Your task to perform on an android device: turn pop-ups on in chrome Image 0: 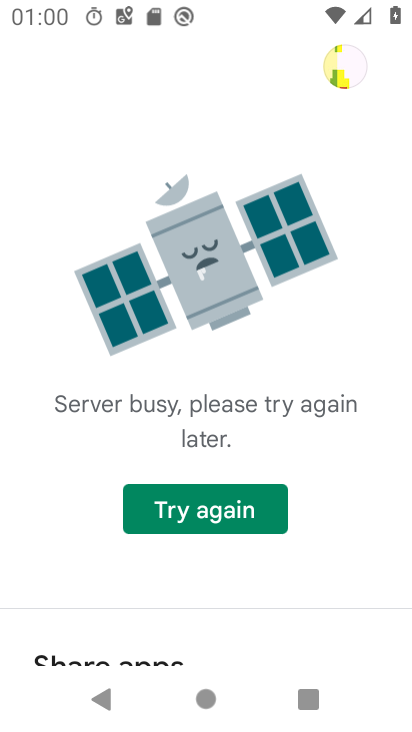
Step 0: press back button
Your task to perform on an android device: turn pop-ups on in chrome Image 1: 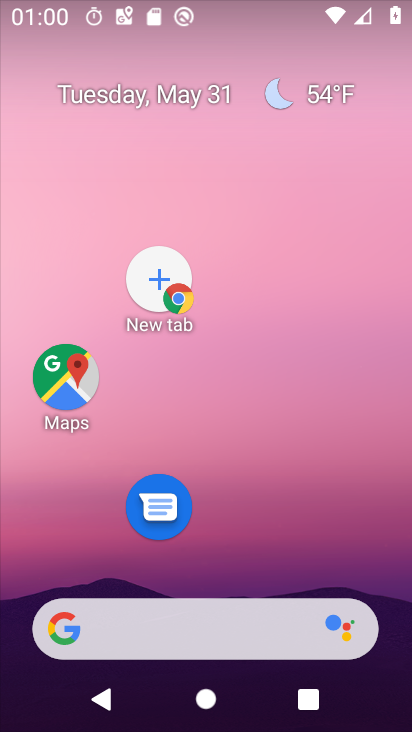
Step 1: drag from (243, 659) to (234, 86)
Your task to perform on an android device: turn pop-ups on in chrome Image 2: 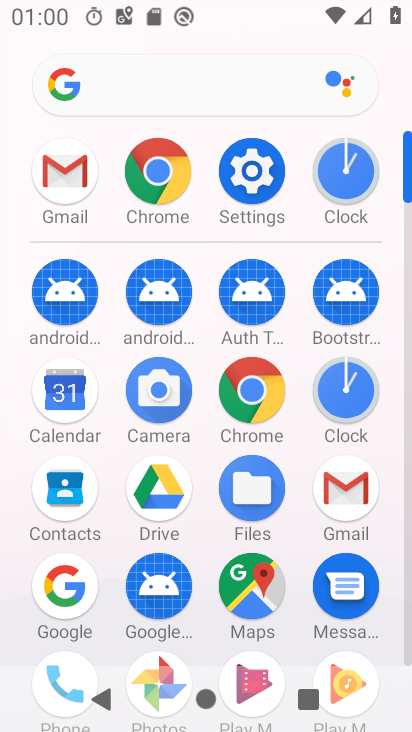
Step 2: click (150, 180)
Your task to perform on an android device: turn pop-ups on in chrome Image 3: 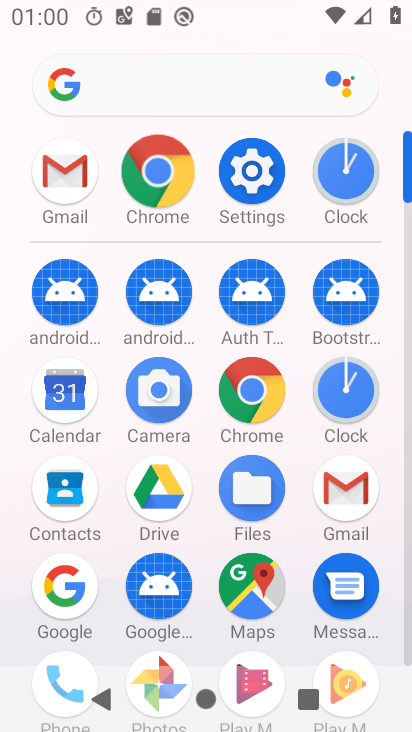
Step 3: click (136, 163)
Your task to perform on an android device: turn pop-ups on in chrome Image 4: 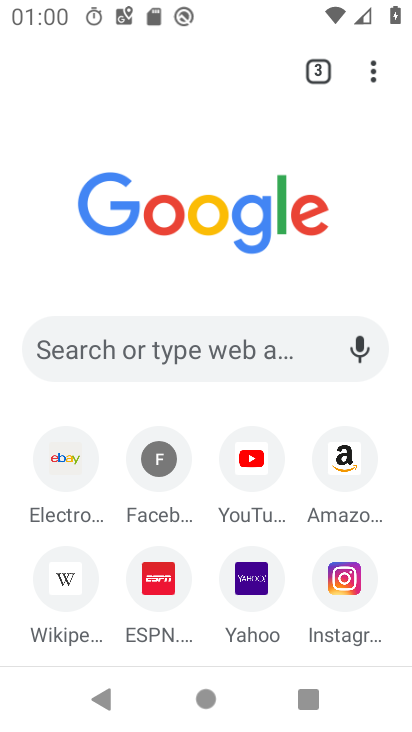
Step 4: drag from (371, 77) to (121, 501)
Your task to perform on an android device: turn pop-ups on in chrome Image 5: 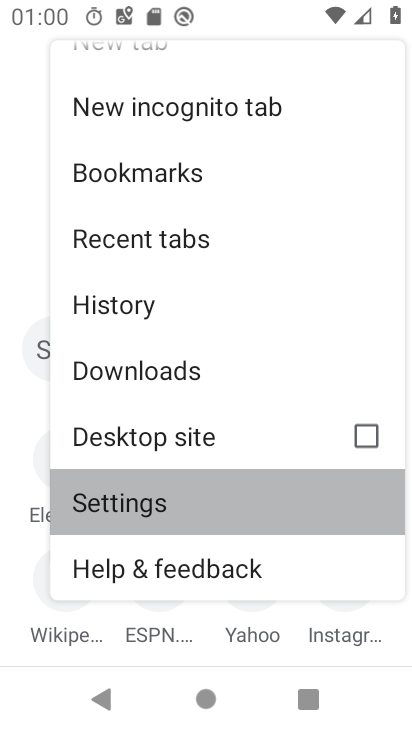
Step 5: click (121, 501)
Your task to perform on an android device: turn pop-ups on in chrome Image 6: 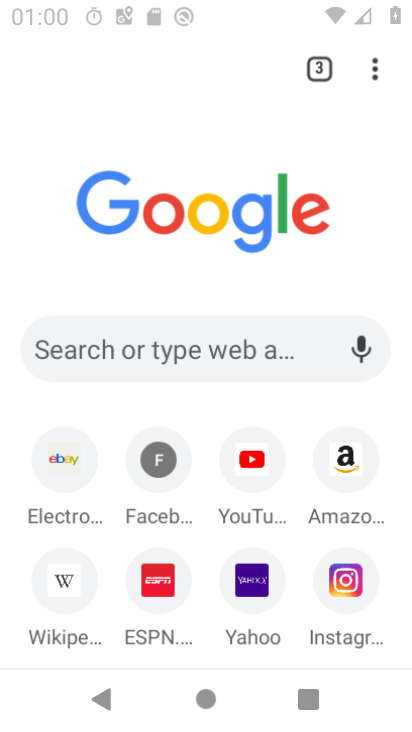
Step 6: click (129, 499)
Your task to perform on an android device: turn pop-ups on in chrome Image 7: 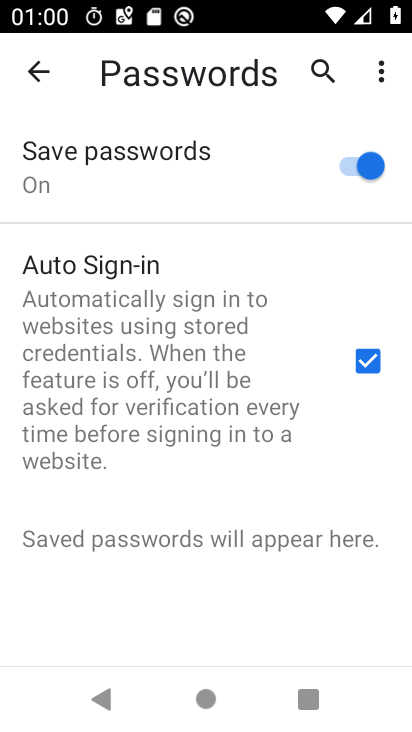
Step 7: click (24, 64)
Your task to perform on an android device: turn pop-ups on in chrome Image 8: 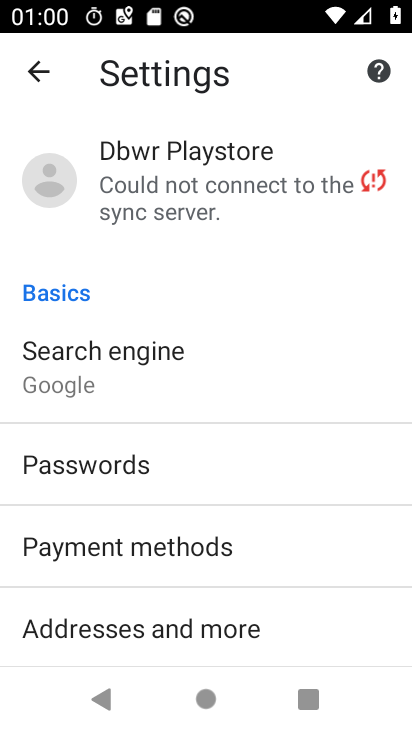
Step 8: drag from (183, 521) to (157, 206)
Your task to perform on an android device: turn pop-ups on in chrome Image 9: 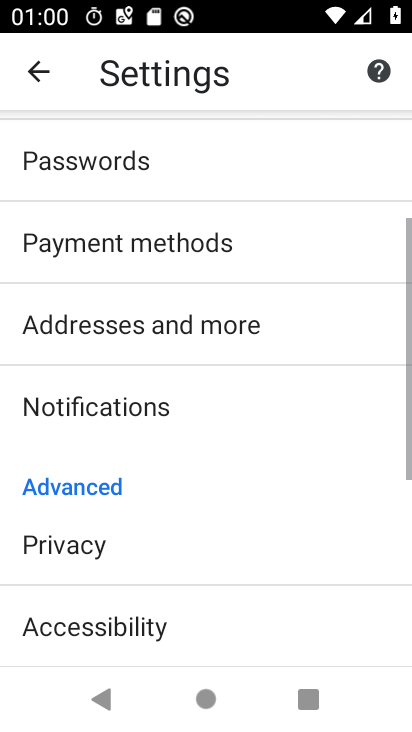
Step 9: drag from (184, 439) to (168, 169)
Your task to perform on an android device: turn pop-ups on in chrome Image 10: 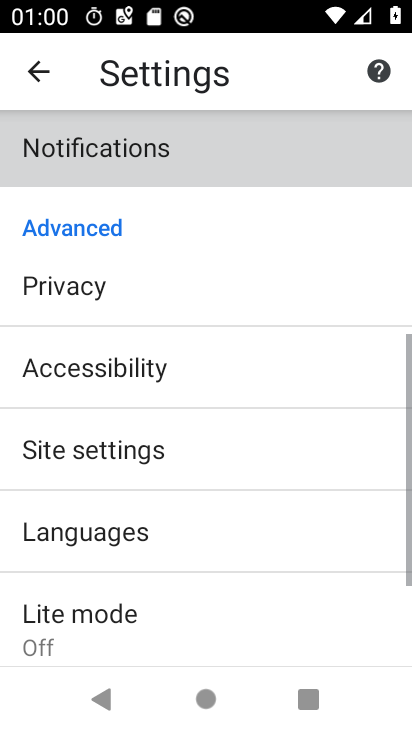
Step 10: drag from (166, 387) to (151, 163)
Your task to perform on an android device: turn pop-ups on in chrome Image 11: 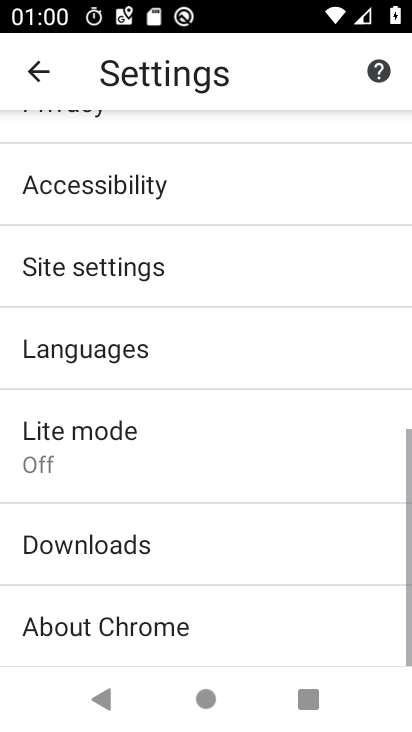
Step 11: drag from (184, 442) to (141, 147)
Your task to perform on an android device: turn pop-ups on in chrome Image 12: 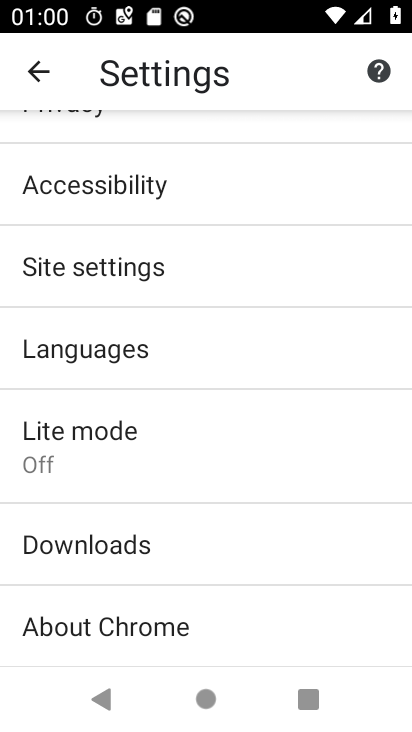
Step 12: click (83, 271)
Your task to perform on an android device: turn pop-ups on in chrome Image 13: 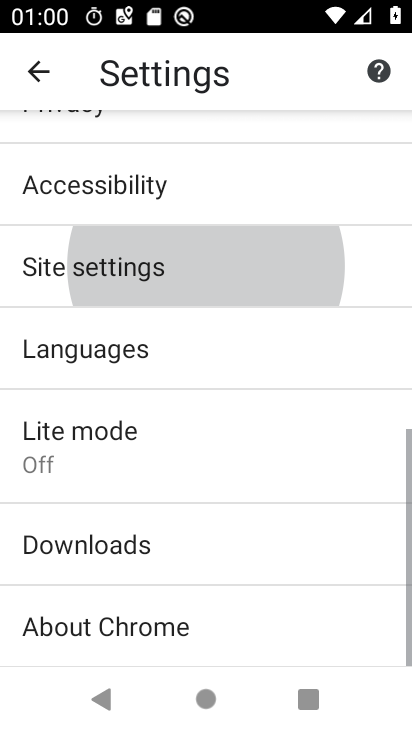
Step 13: click (83, 271)
Your task to perform on an android device: turn pop-ups on in chrome Image 14: 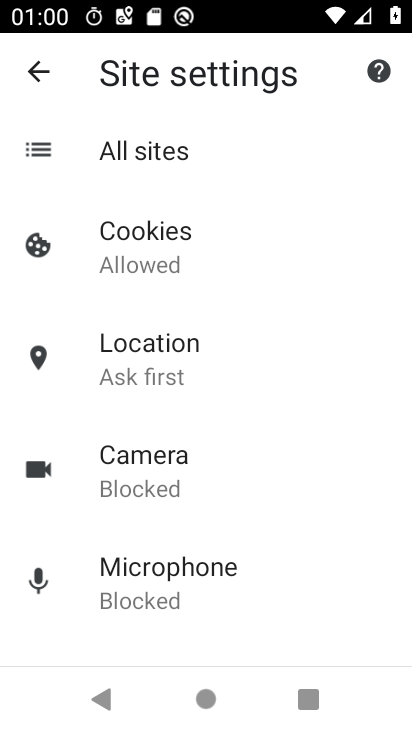
Step 14: drag from (169, 481) to (135, 259)
Your task to perform on an android device: turn pop-ups on in chrome Image 15: 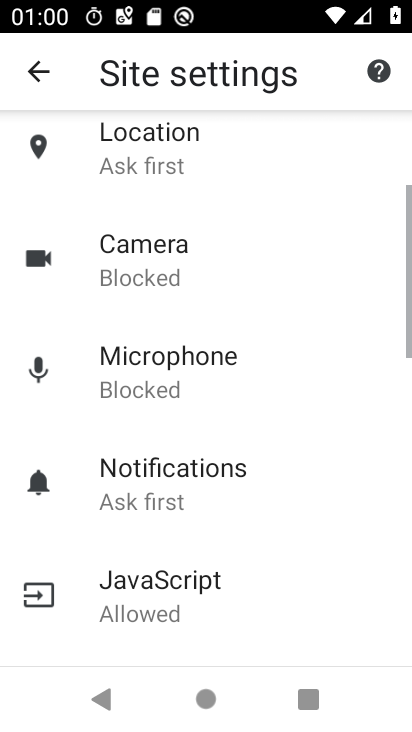
Step 15: drag from (183, 487) to (159, 174)
Your task to perform on an android device: turn pop-ups on in chrome Image 16: 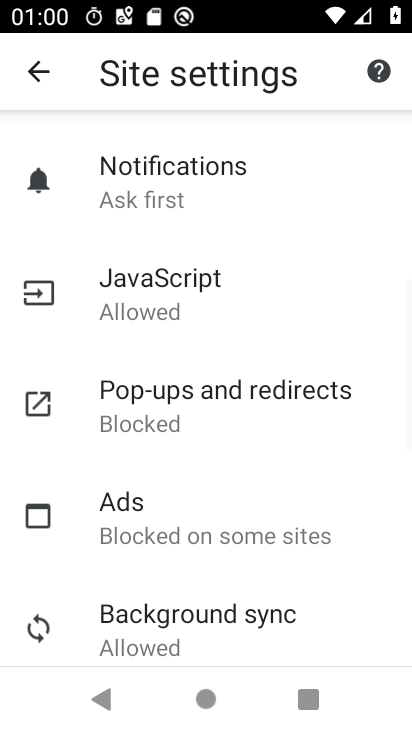
Step 16: click (181, 398)
Your task to perform on an android device: turn pop-ups on in chrome Image 17: 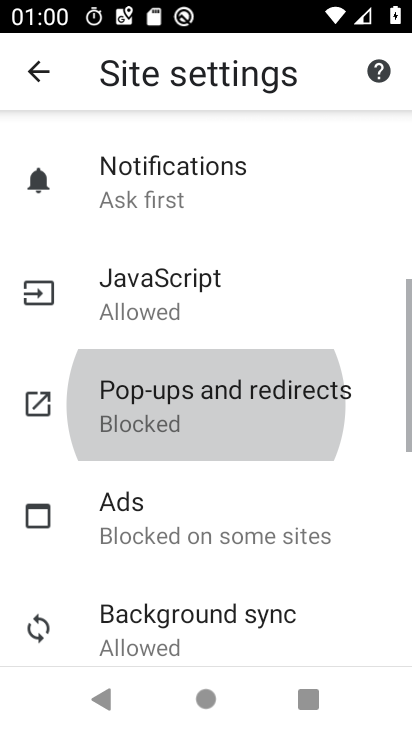
Step 17: click (181, 398)
Your task to perform on an android device: turn pop-ups on in chrome Image 18: 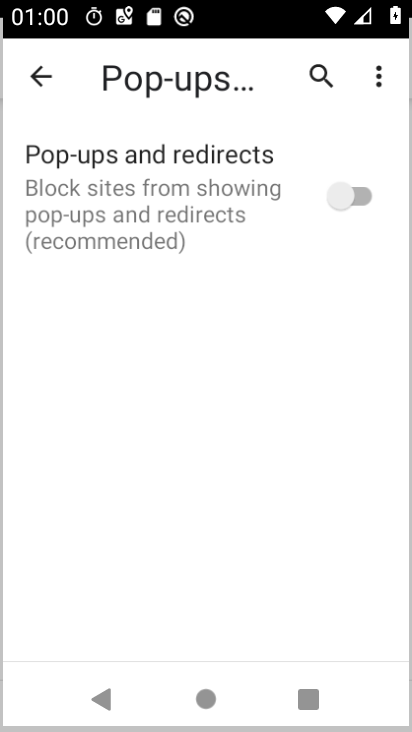
Step 18: click (179, 397)
Your task to perform on an android device: turn pop-ups on in chrome Image 19: 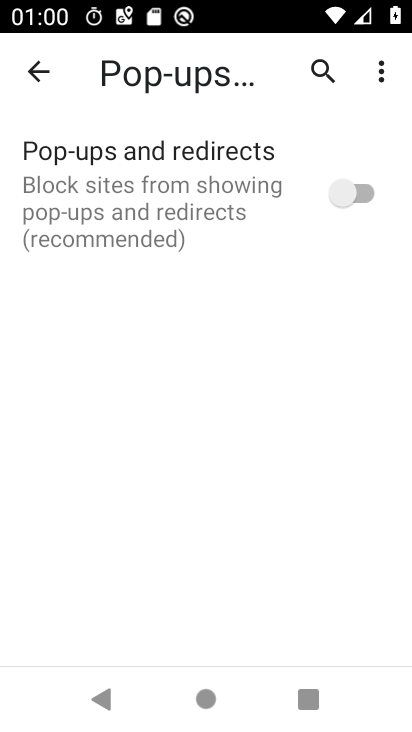
Step 19: click (179, 397)
Your task to perform on an android device: turn pop-ups on in chrome Image 20: 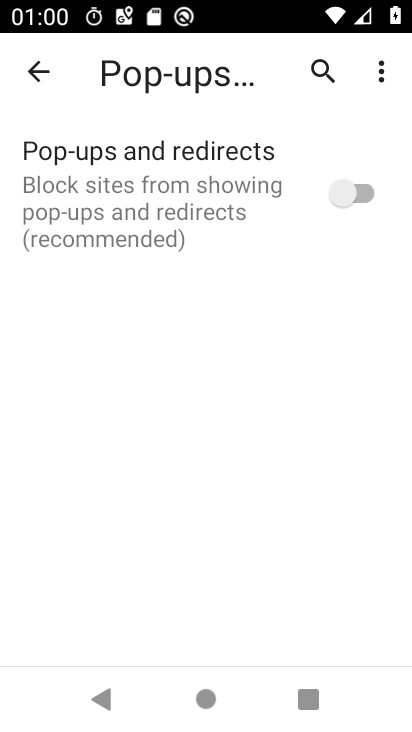
Step 20: click (343, 193)
Your task to perform on an android device: turn pop-ups on in chrome Image 21: 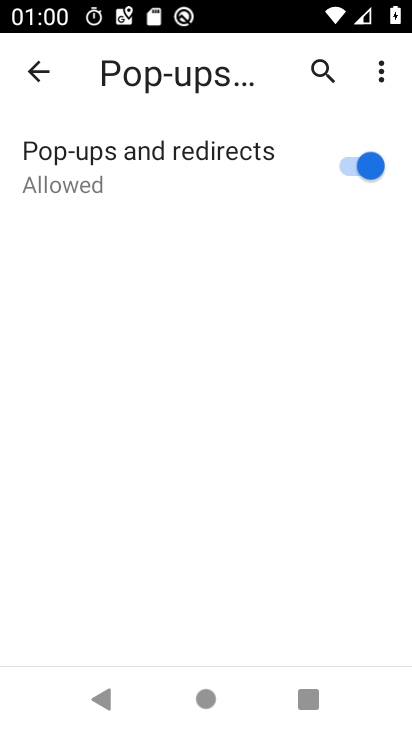
Step 21: task complete